Your task to perform on an android device: open app "Yahoo Mail" (install if not already installed) and enter user name: "lawsuit@inbox.com" and password: "pooch" Image 0: 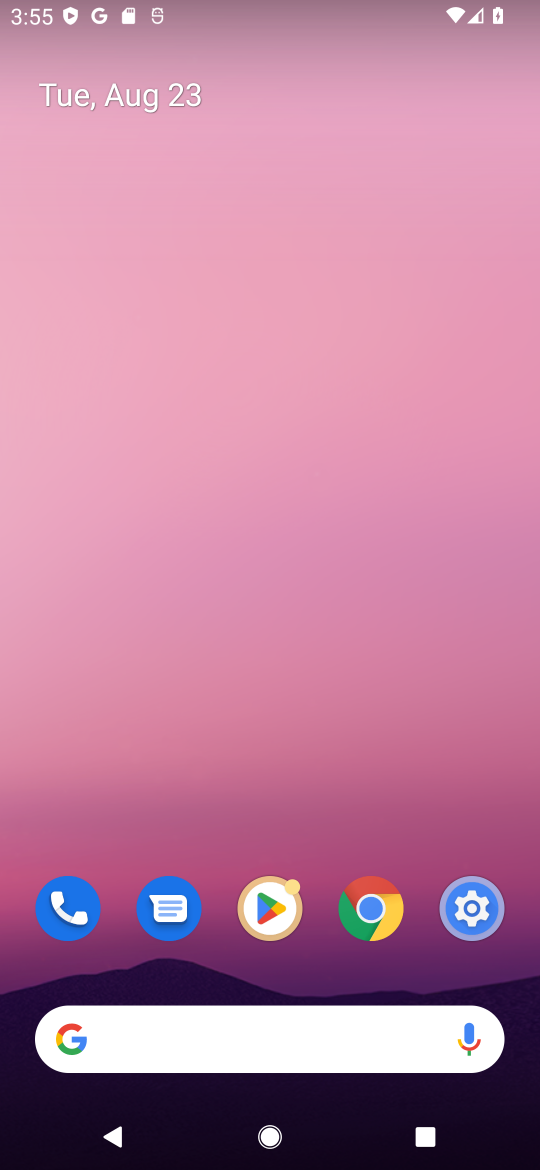
Step 0: drag from (293, 1009) to (433, 21)
Your task to perform on an android device: open app "Yahoo Mail" (install if not already installed) and enter user name: "lawsuit@inbox.com" and password: "pooch" Image 1: 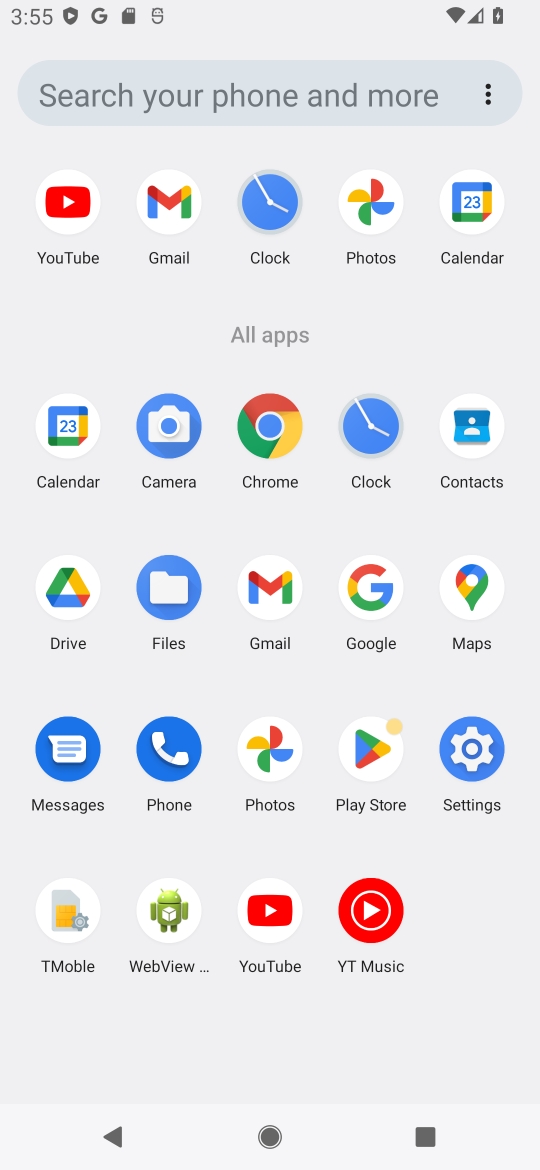
Step 1: click (366, 759)
Your task to perform on an android device: open app "Yahoo Mail" (install if not already installed) and enter user name: "lawsuit@inbox.com" and password: "pooch" Image 2: 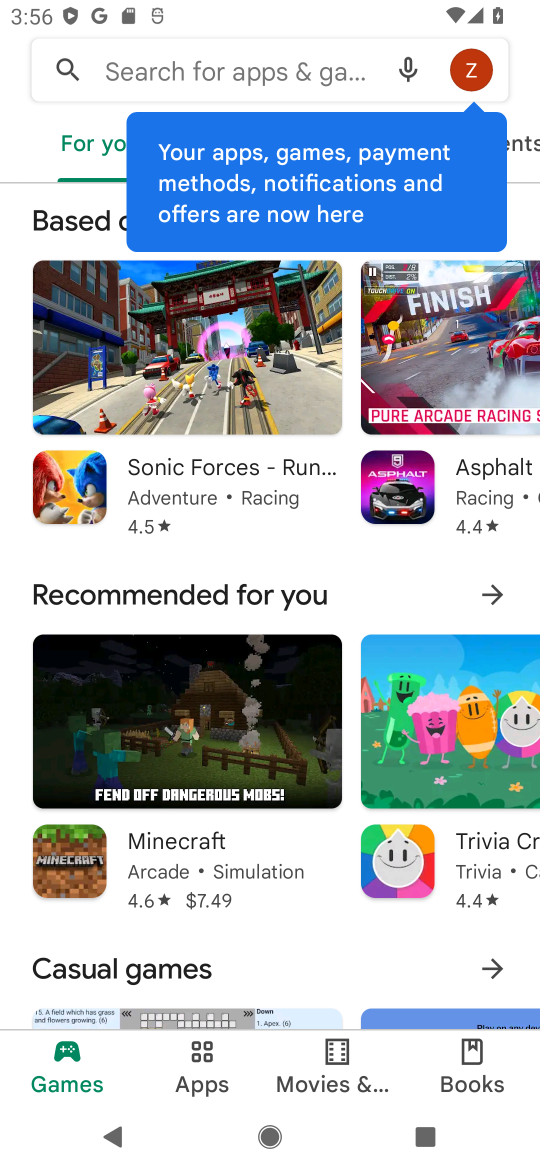
Step 2: click (222, 59)
Your task to perform on an android device: open app "Yahoo Mail" (install if not already installed) and enter user name: "lawsuit@inbox.com" and password: "pooch" Image 3: 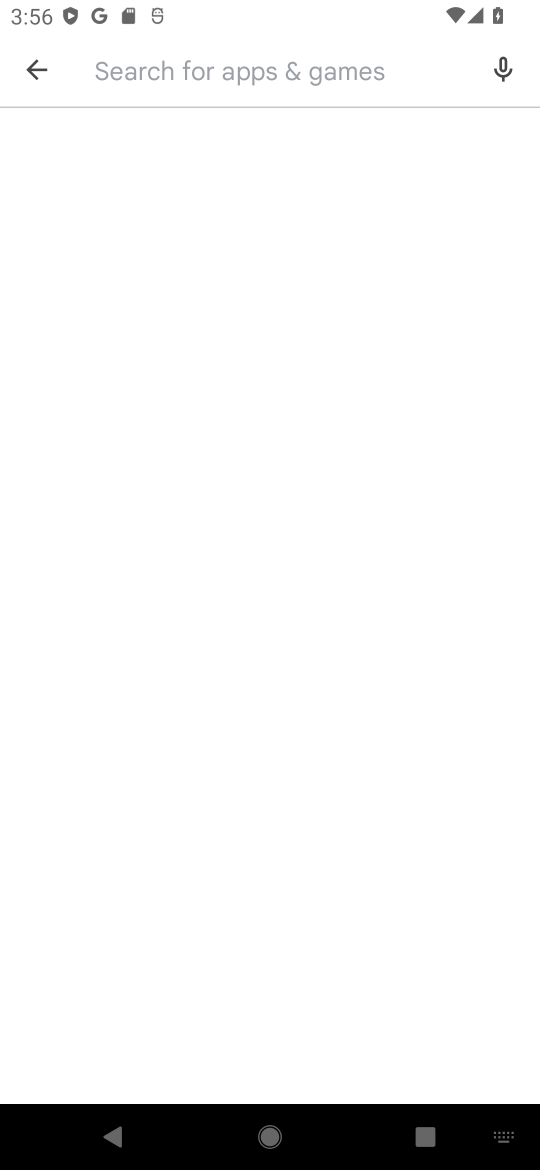
Step 3: type "Yahoo Mail"
Your task to perform on an android device: open app "Yahoo Mail" (install if not already installed) and enter user name: "lawsuit@inbox.com" and password: "pooch" Image 4: 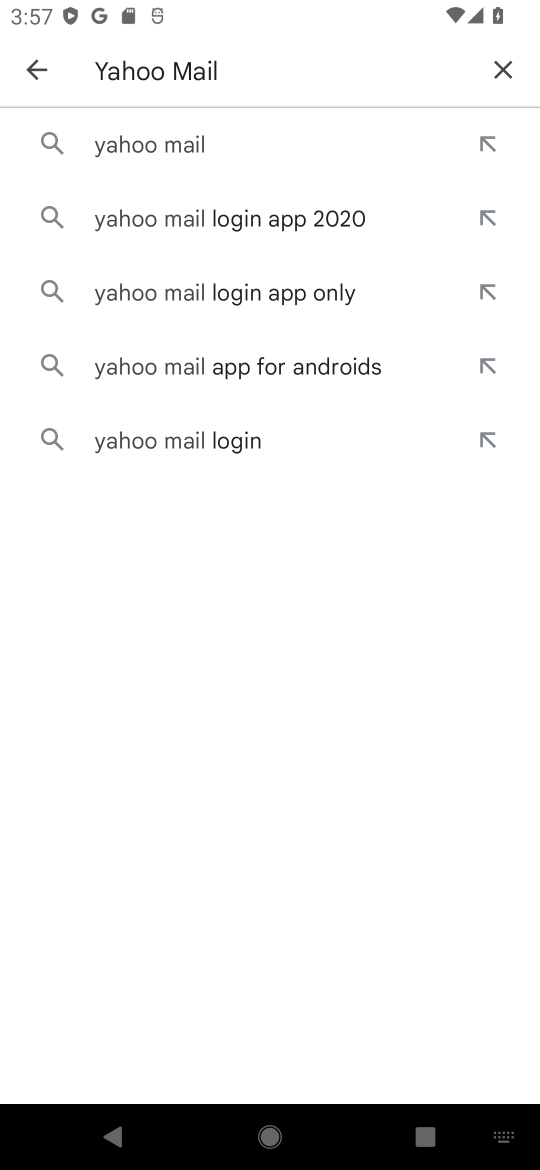
Step 4: click (123, 136)
Your task to perform on an android device: open app "Yahoo Mail" (install if not already installed) and enter user name: "lawsuit@inbox.com" and password: "pooch" Image 5: 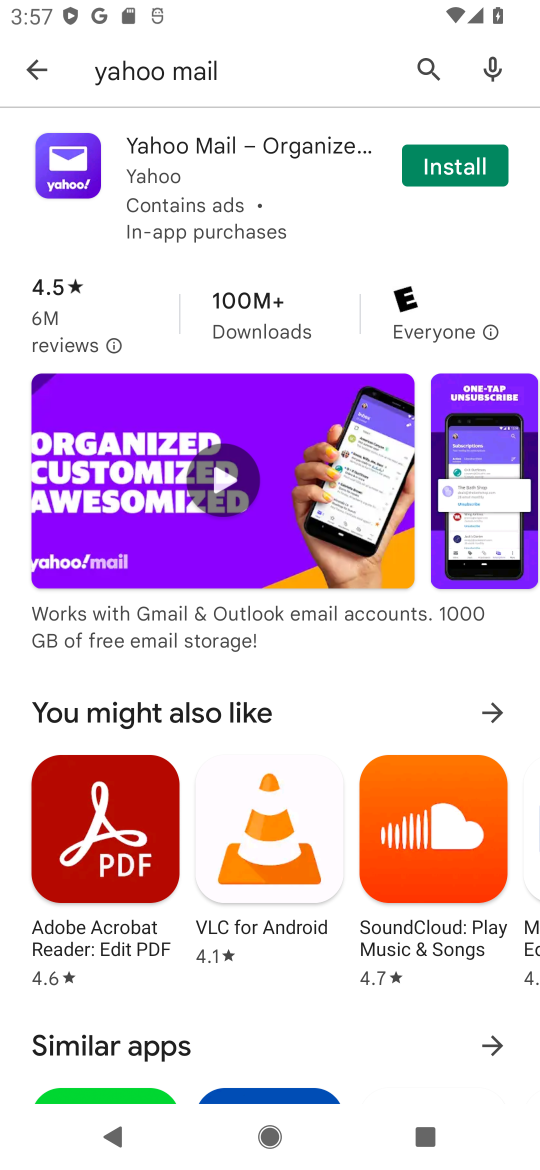
Step 5: click (448, 173)
Your task to perform on an android device: open app "Yahoo Mail" (install if not already installed) and enter user name: "lawsuit@inbox.com" and password: "pooch" Image 6: 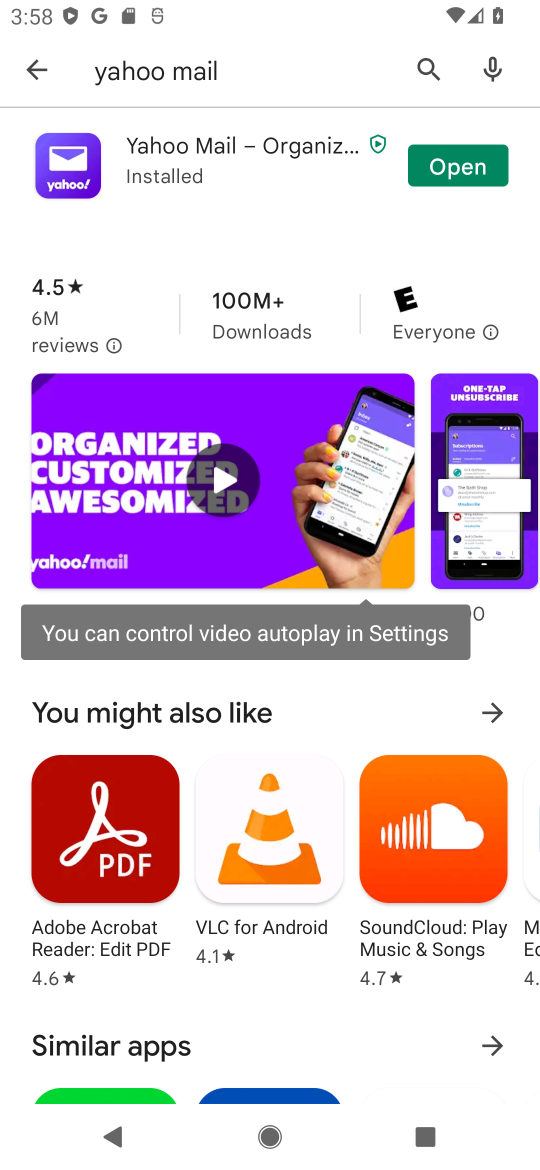
Step 6: click (463, 147)
Your task to perform on an android device: open app "Yahoo Mail" (install if not already installed) and enter user name: "lawsuit@inbox.com" and password: "pooch" Image 7: 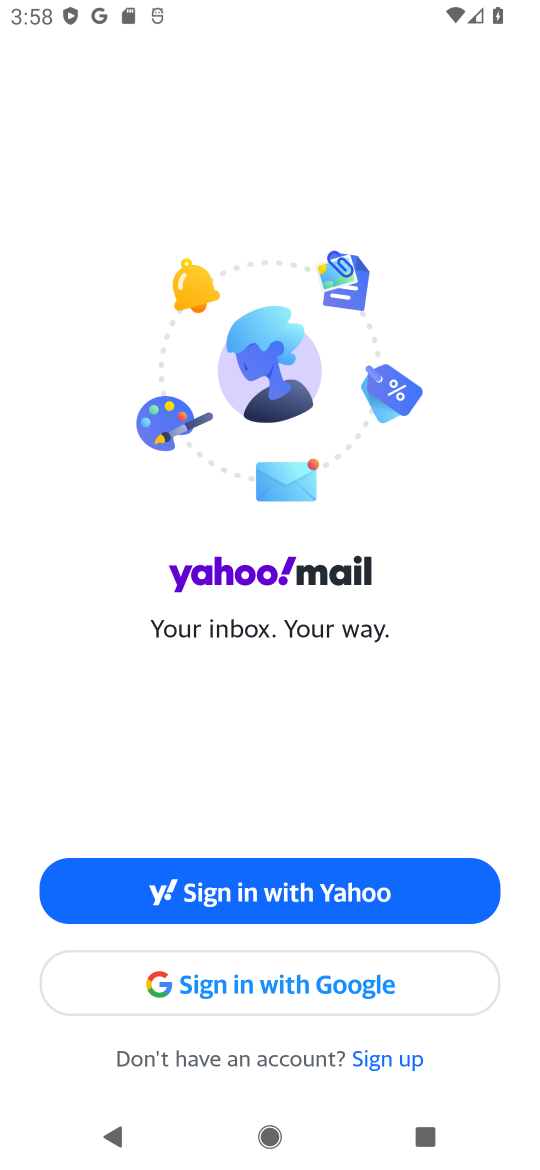
Step 7: task complete